Your task to perform on an android device: open app "Life360: Find Family & Friends" Image 0: 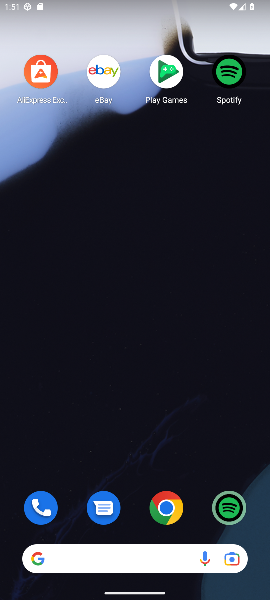
Step 0: drag from (143, 439) to (118, 14)
Your task to perform on an android device: open app "Life360: Find Family & Friends" Image 1: 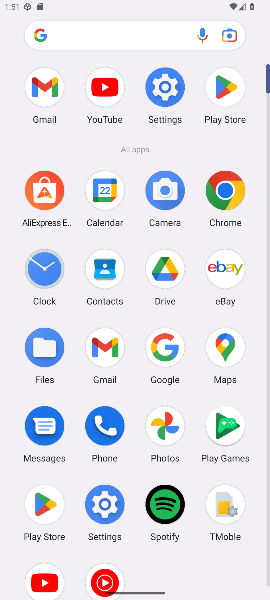
Step 1: click (221, 91)
Your task to perform on an android device: open app "Life360: Find Family & Friends" Image 2: 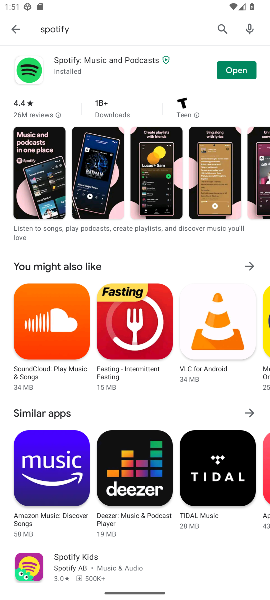
Step 2: click (221, 23)
Your task to perform on an android device: open app "Life360: Find Family & Friends" Image 3: 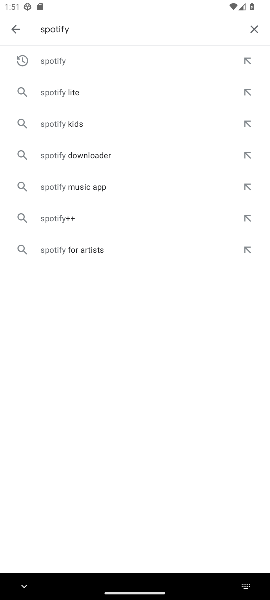
Step 3: click (253, 27)
Your task to perform on an android device: open app "Life360: Find Family & Friends" Image 4: 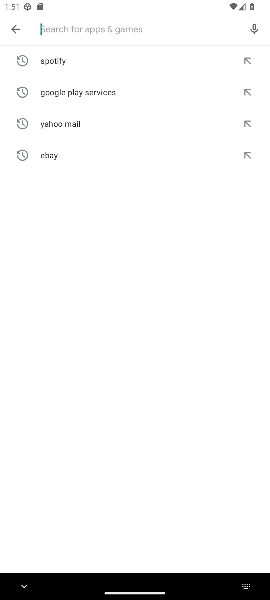
Step 4: type "life360"
Your task to perform on an android device: open app "Life360: Find Family & Friends" Image 5: 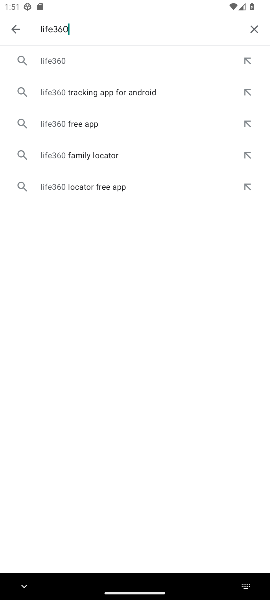
Step 5: click (47, 58)
Your task to perform on an android device: open app "Life360: Find Family & Friends" Image 6: 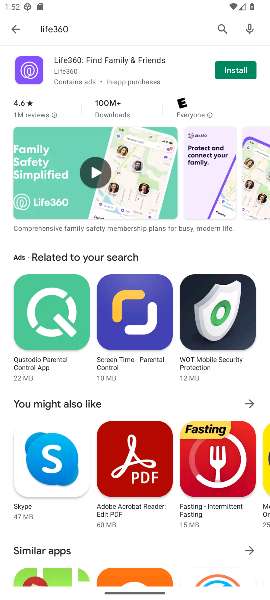
Step 6: task complete